Your task to perform on an android device: Open my contact list Image 0: 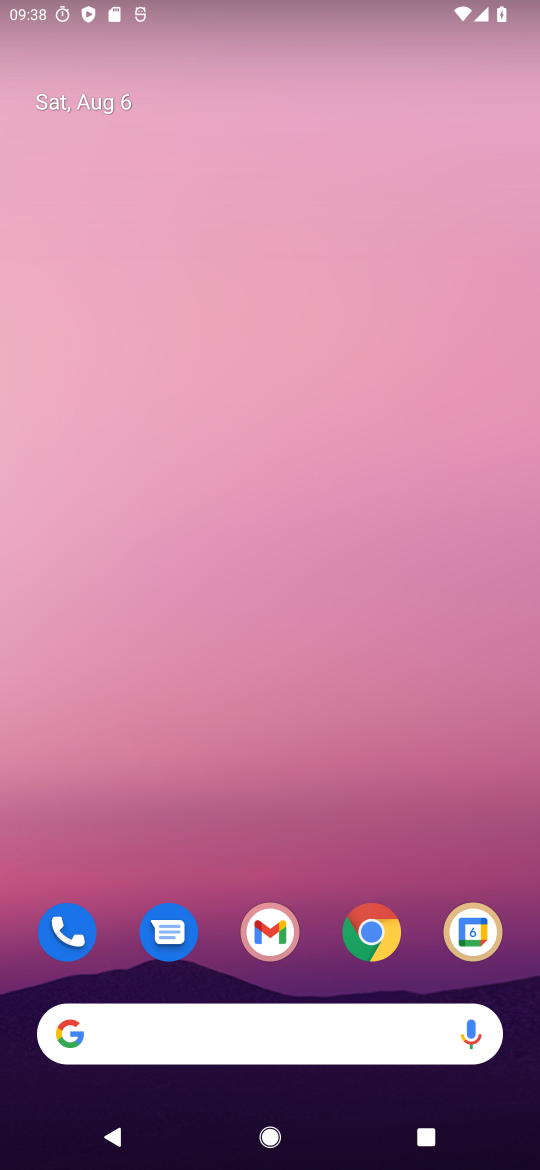
Step 0: drag from (331, 1030) to (439, 338)
Your task to perform on an android device: Open my contact list Image 1: 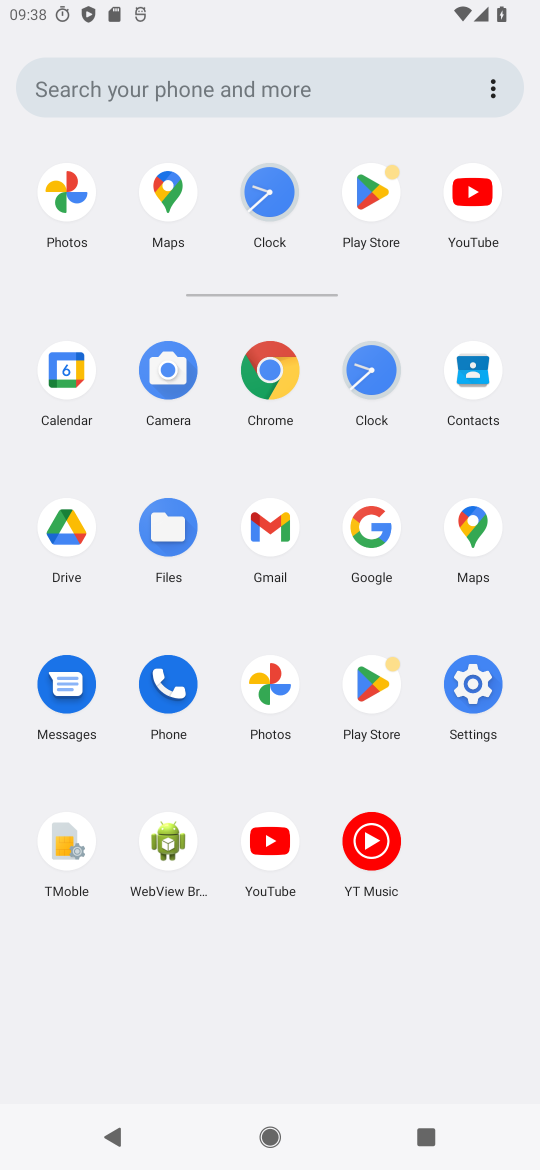
Step 1: click (471, 376)
Your task to perform on an android device: Open my contact list Image 2: 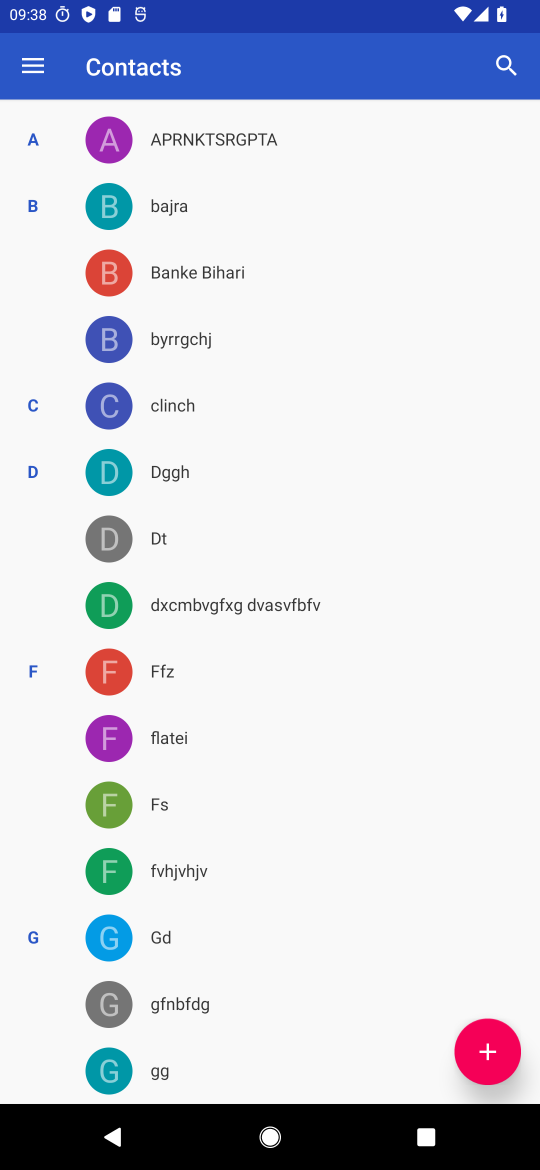
Step 2: task complete